Your task to perform on an android device: Go to display settings Image 0: 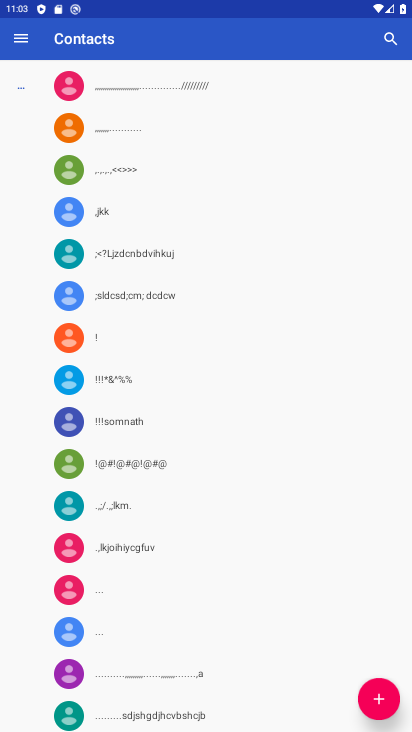
Step 0: press home button
Your task to perform on an android device: Go to display settings Image 1: 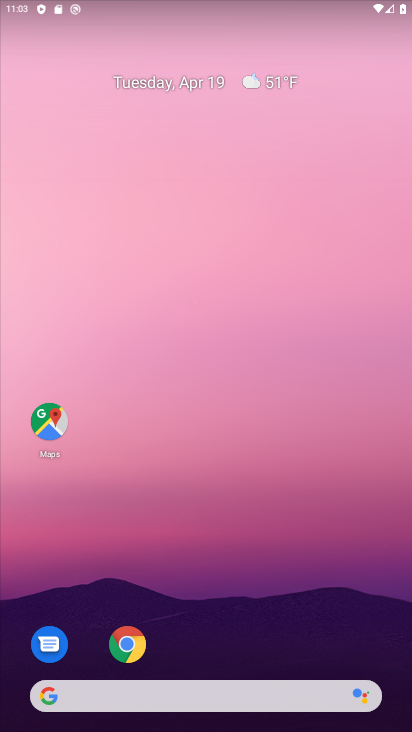
Step 1: drag from (247, 613) to (342, 53)
Your task to perform on an android device: Go to display settings Image 2: 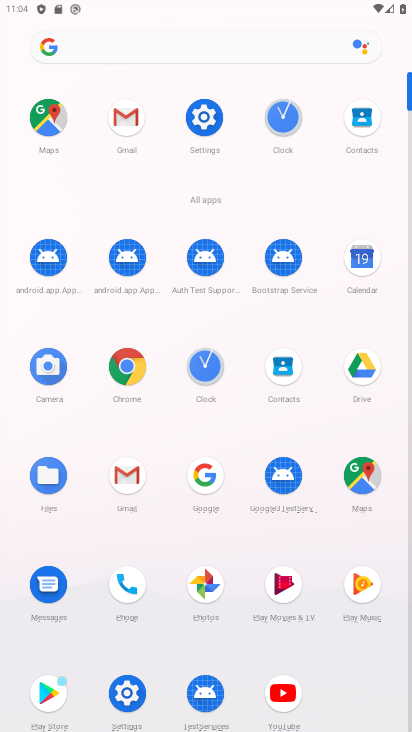
Step 2: click (208, 114)
Your task to perform on an android device: Go to display settings Image 3: 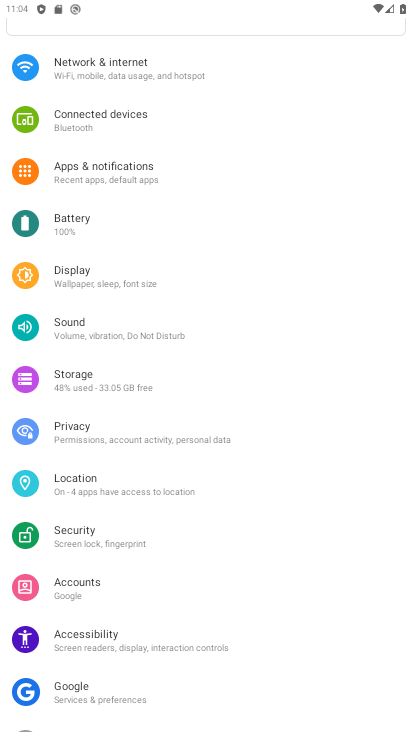
Step 3: click (115, 287)
Your task to perform on an android device: Go to display settings Image 4: 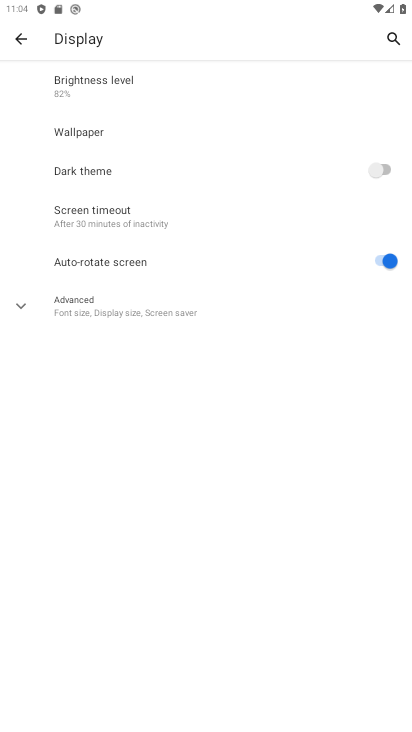
Step 4: task complete